Your task to perform on an android device: Toggle the flashlight Image 0: 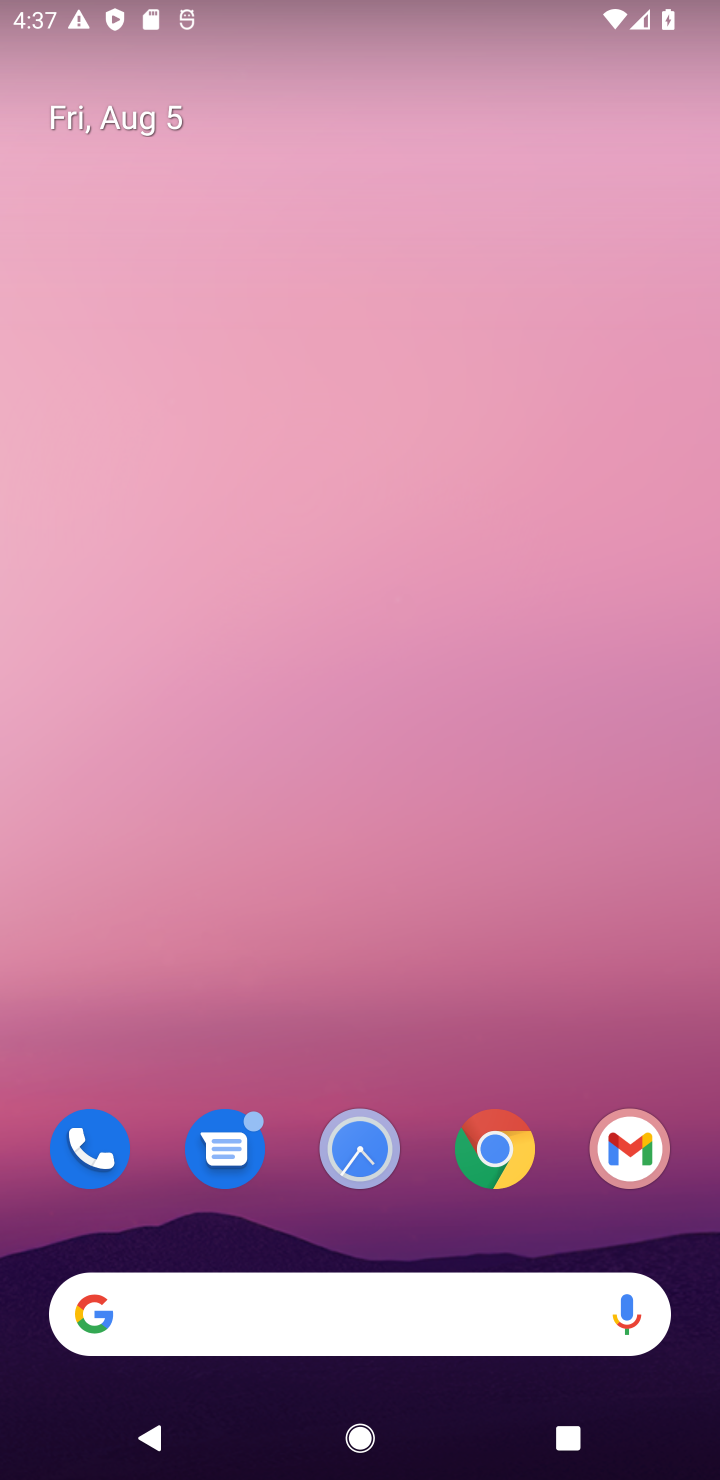
Step 0: drag from (321, 1060) to (499, 40)
Your task to perform on an android device: Toggle the flashlight Image 1: 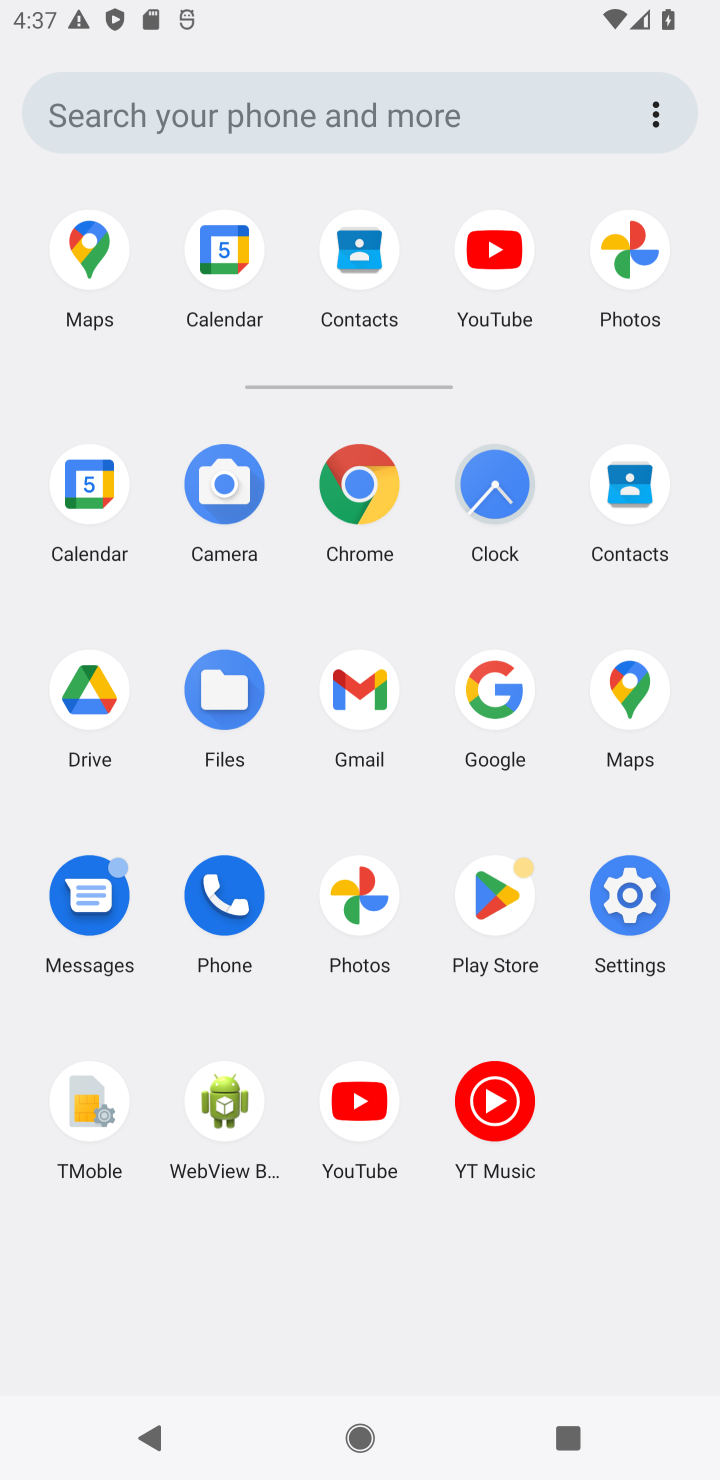
Step 1: click (612, 897)
Your task to perform on an android device: Toggle the flashlight Image 2: 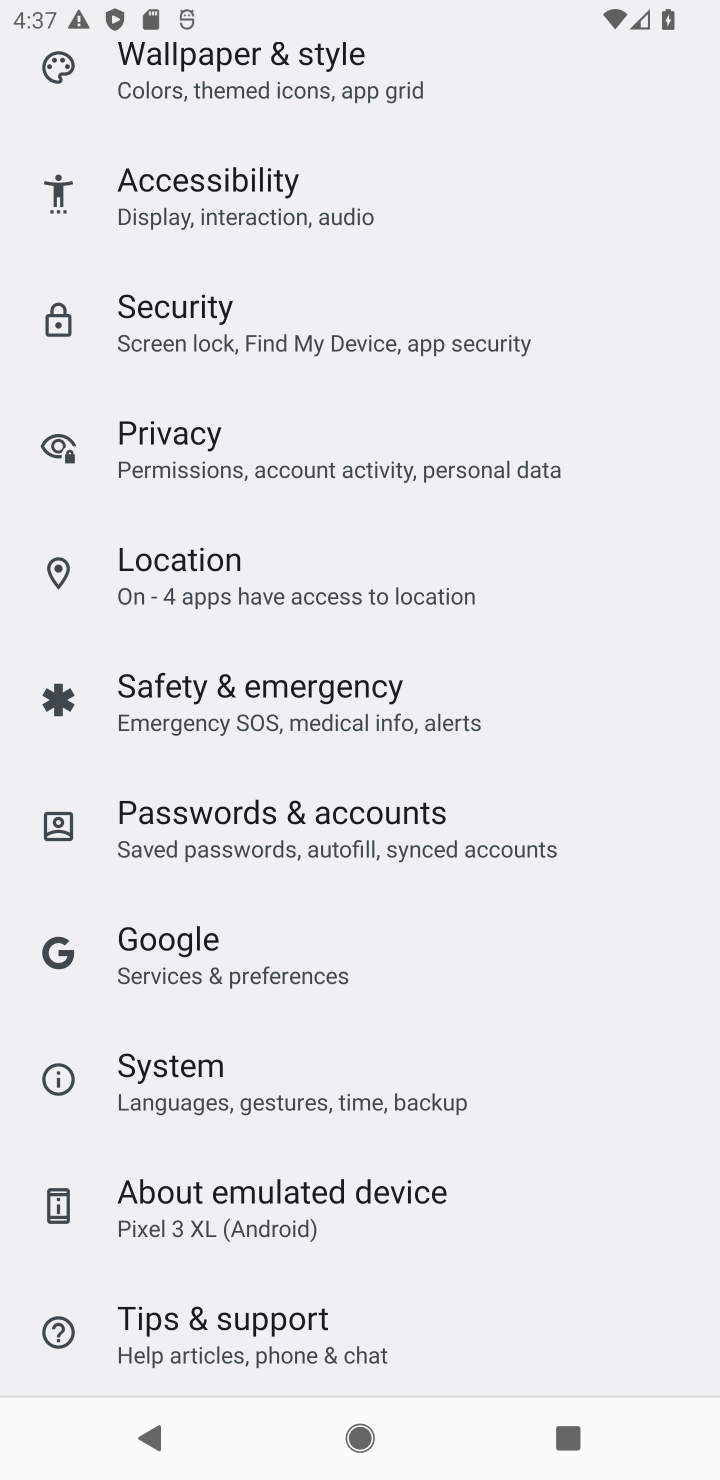
Step 2: drag from (552, 236) to (435, 1366)
Your task to perform on an android device: Toggle the flashlight Image 3: 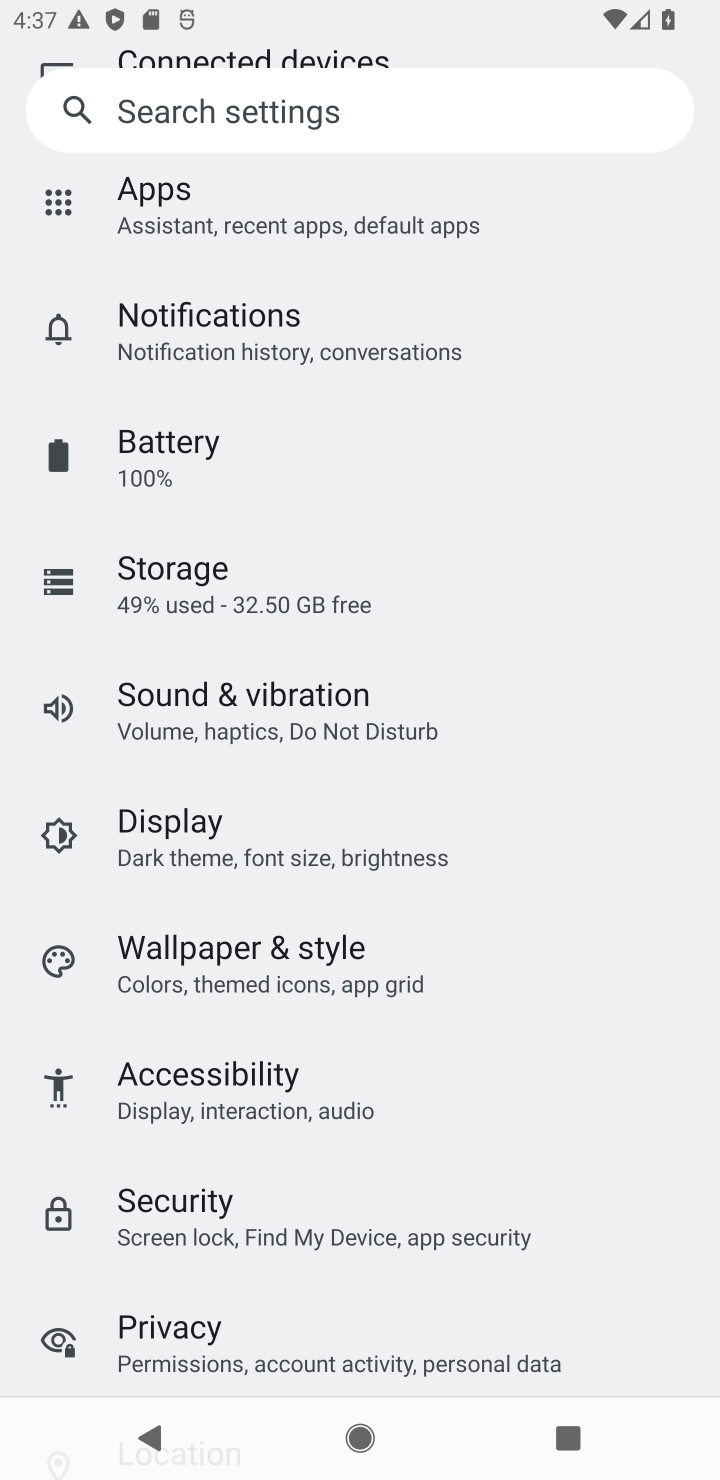
Step 3: click (308, 112)
Your task to perform on an android device: Toggle the flashlight Image 4: 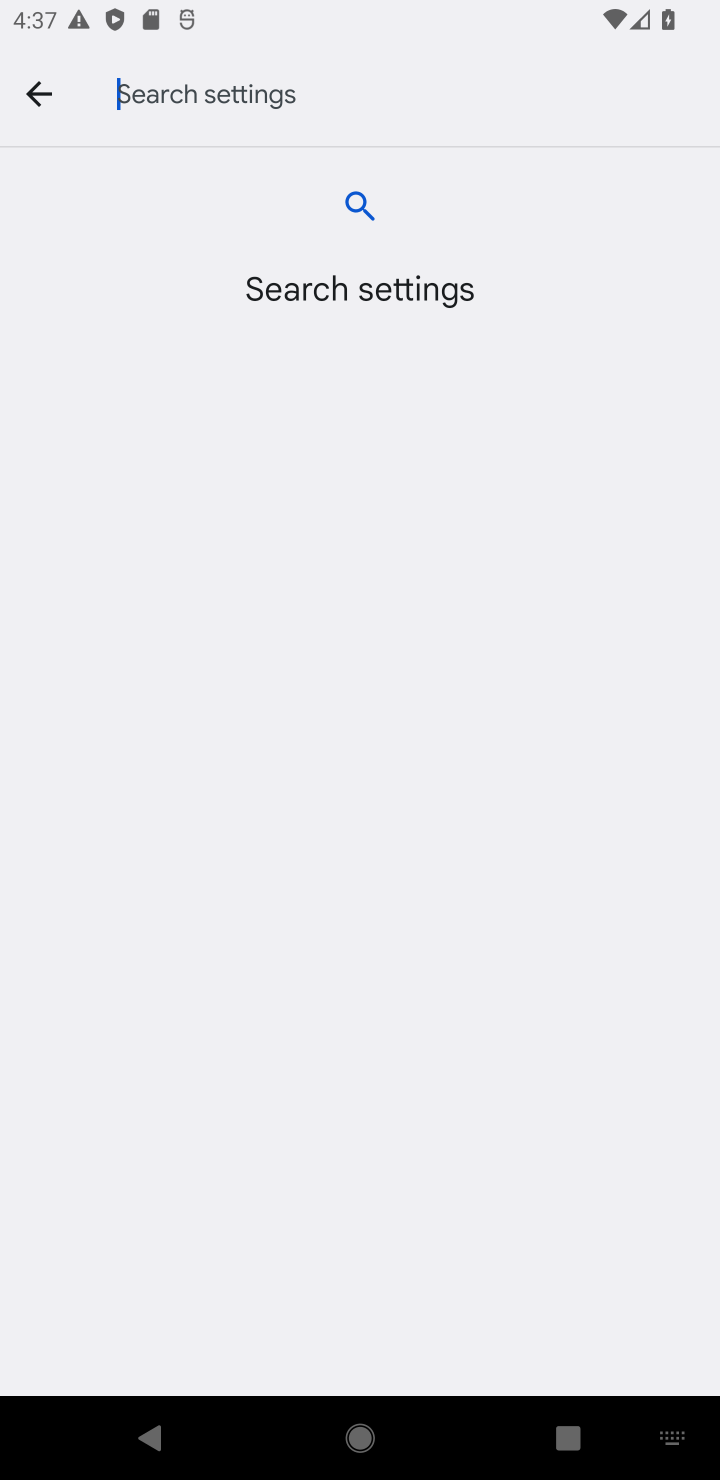
Step 4: type "flashlight"
Your task to perform on an android device: Toggle the flashlight Image 5: 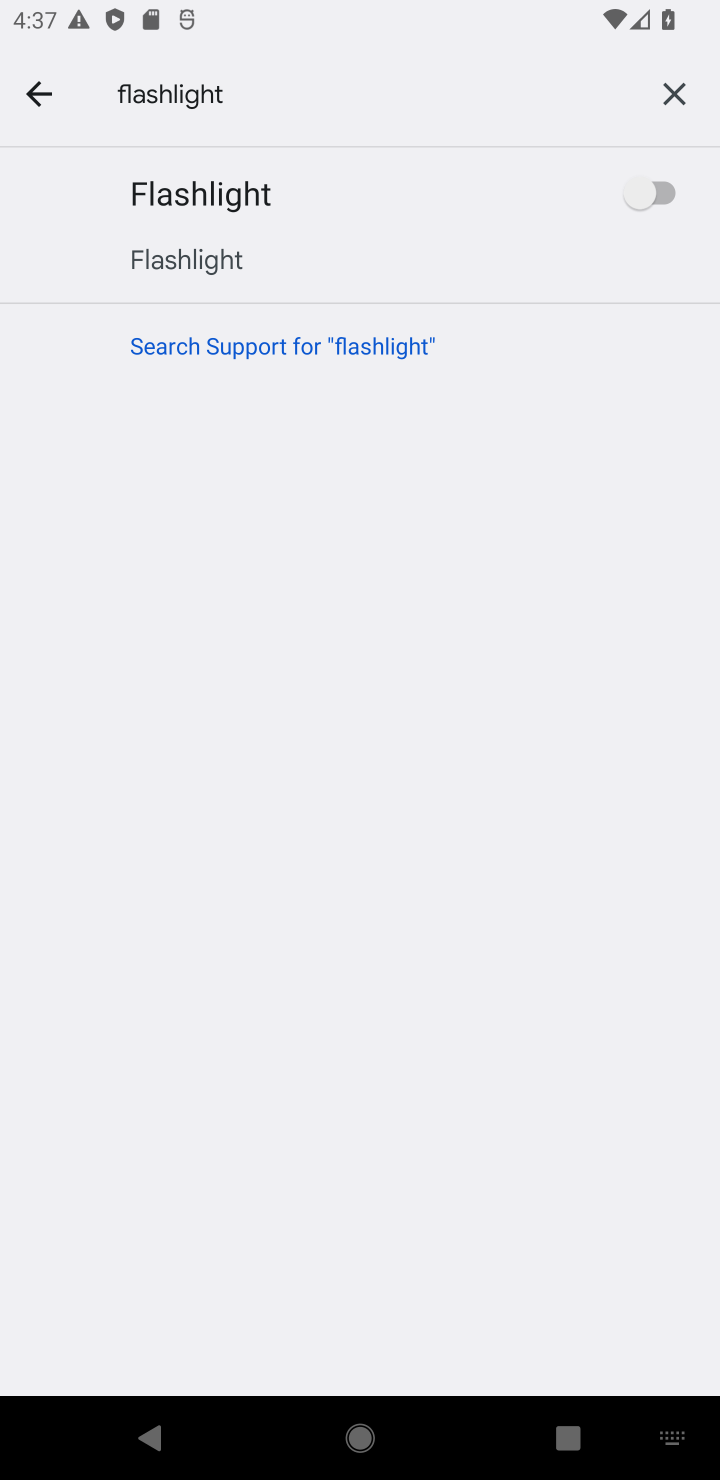
Step 5: click (640, 197)
Your task to perform on an android device: Toggle the flashlight Image 6: 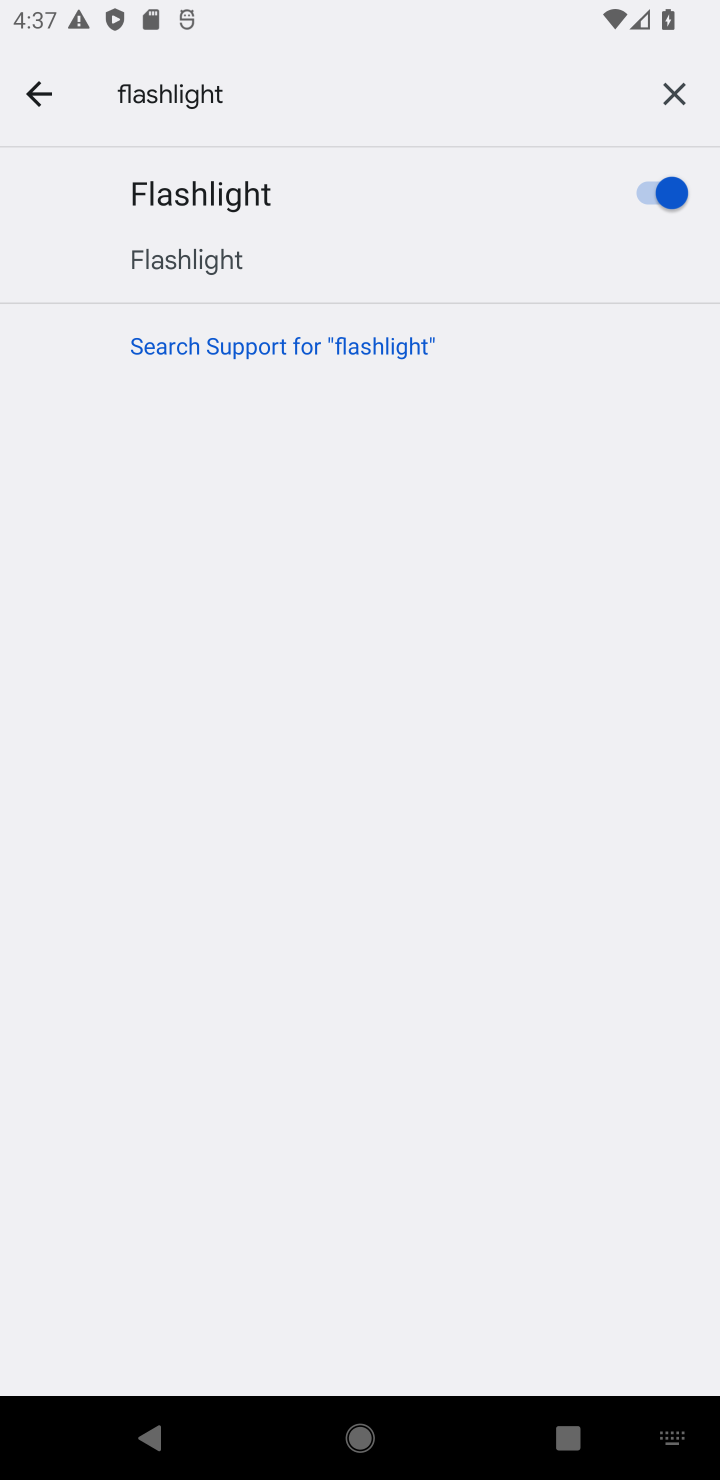
Step 6: task complete